Your task to perform on an android device: open a bookmark in the chrome app Image 0: 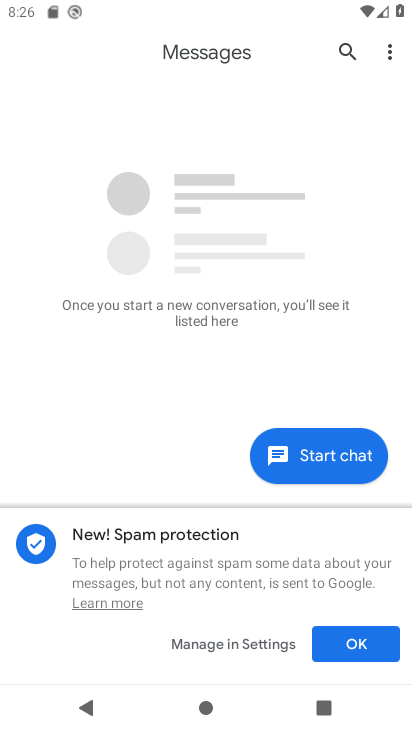
Step 0: press home button
Your task to perform on an android device: open a bookmark in the chrome app Image 1: 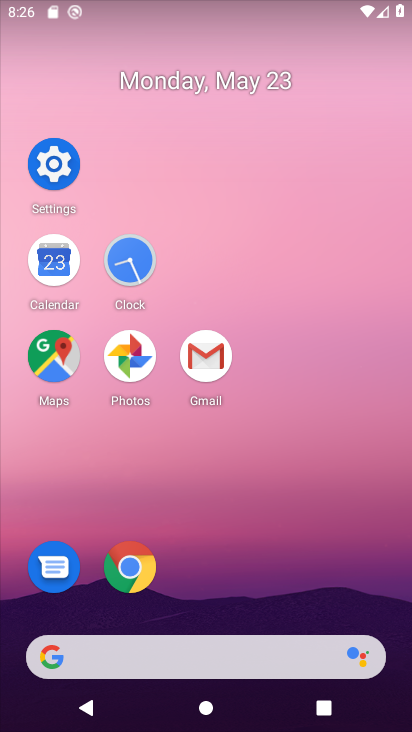
Step 1: click (123, 570)
Your task to perform on an android device: open a bookmark in the chrome app Image 2: 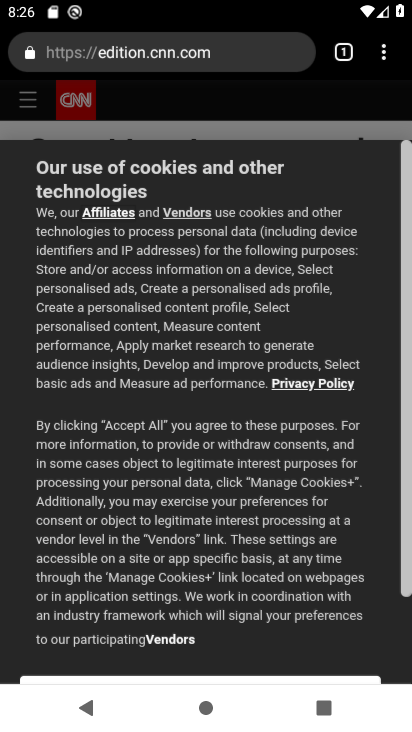
Step 2: click (381, 61)
Your task to perform on an android device: open a bookmark in the chrome app Image 3: 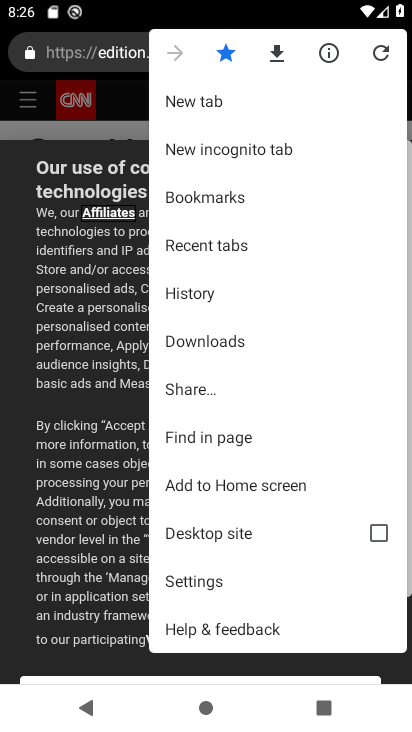
Step 3: click (264, 206)
Your task to perform on an android device: open a bookmark in the chrome app Image 4: 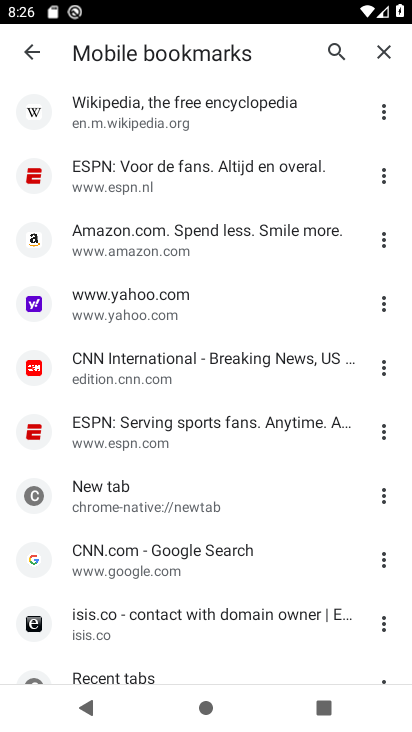
Step 4: task complete